Your task to perform on an android device: refresh tabs in the chrome app Image 0: 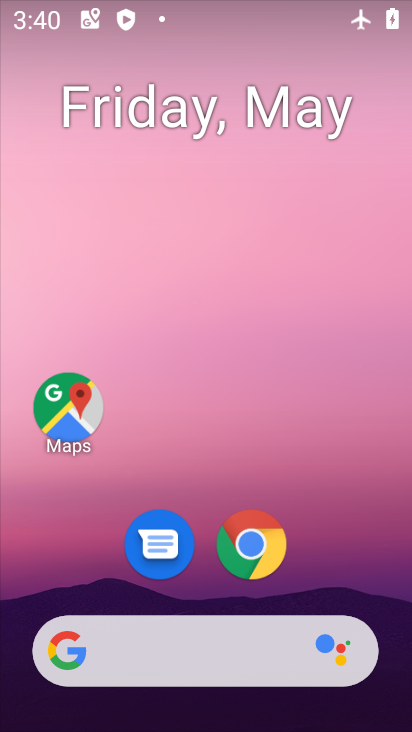
Step 0: drag from (271, 644) to (152, 144)
Your task to perform on an android device: refresh tabs in the chrome app Image 1: 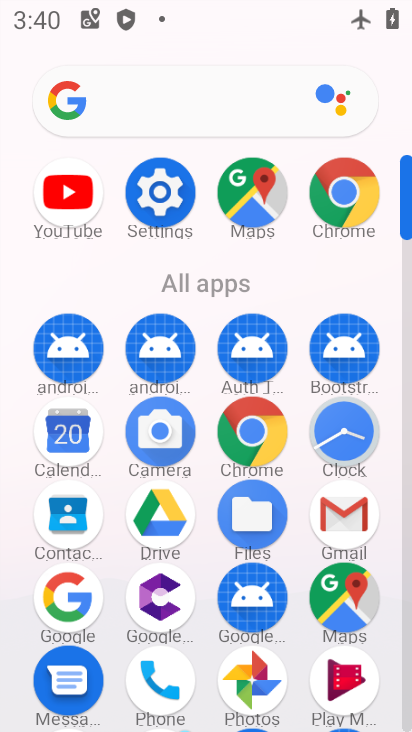
Step 1: click (245, 200)
Your task to perform on an android device: refresh tabs in the chrome app Image 2: 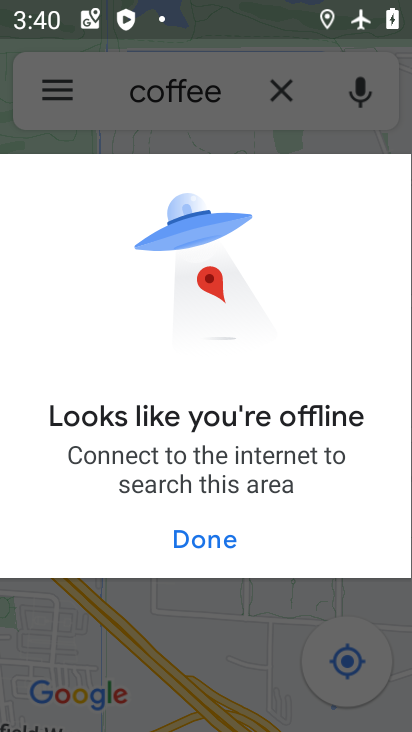
Step 2: task complete